Your task to perform on an android device: check google app version Image 0: 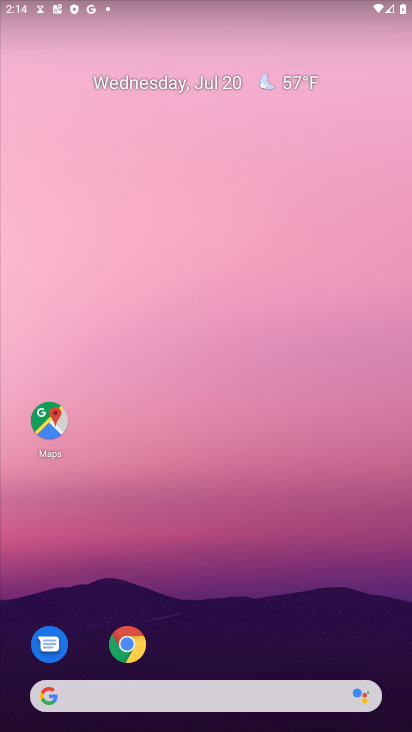
Step 0: press home button
Your task to perform on an android device: check google app version Image 1: 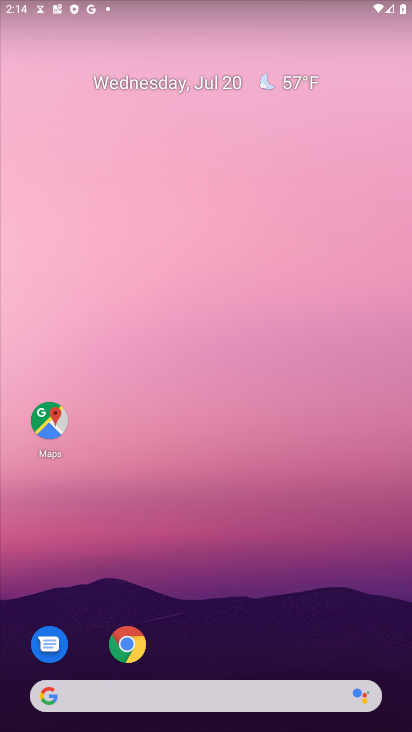
Step 1: click (45, 694)
Your task to perform on an android device: check google app version Image 2: 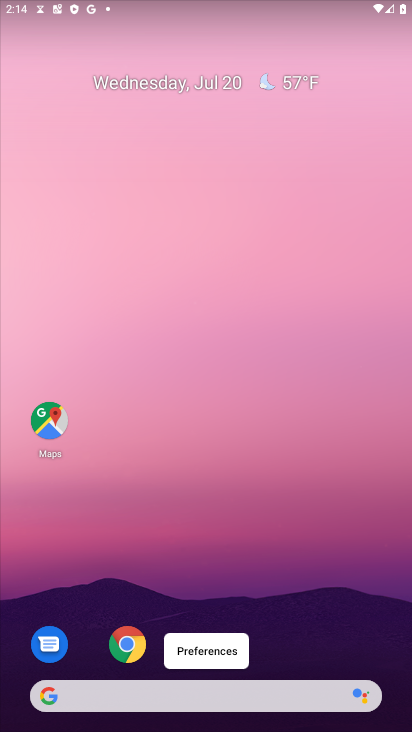
Step 2: drag from (353, 656) to (377, 46)
Your task to perform on an android device: check google app version Image 3: 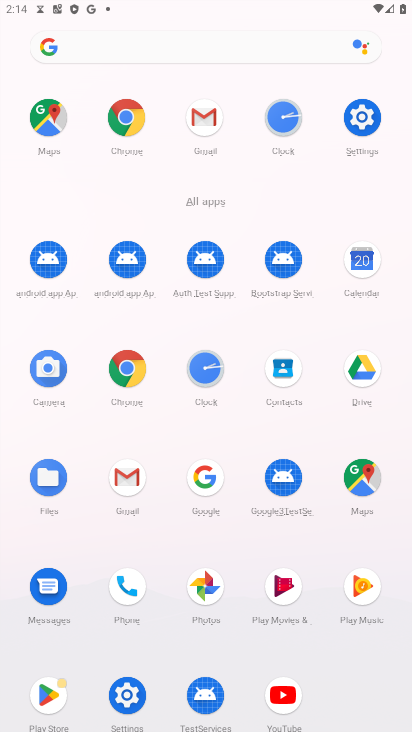
Step 3: click (204, 477)
Your task to perform on an android device: check google app version Image 4: 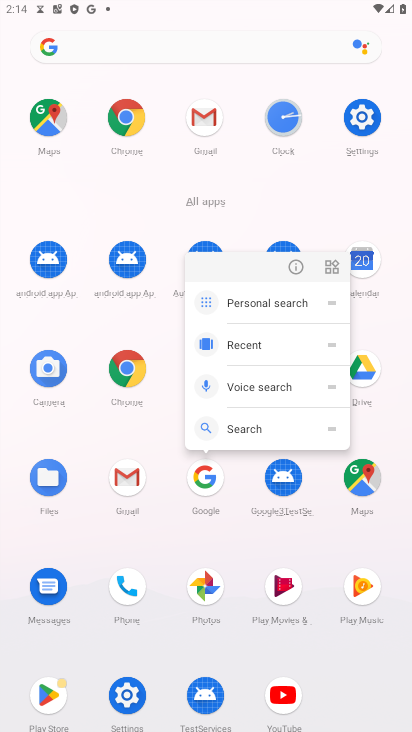
Step 4: click (291, 259)
Your task to perform on an android device: check google app version Image 5: 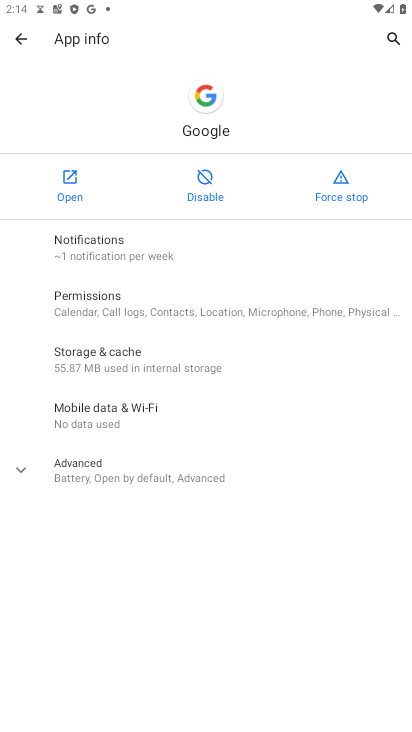
Step 5: click (65, 477)
Your task to perform on an android device: check google app version Image 6: 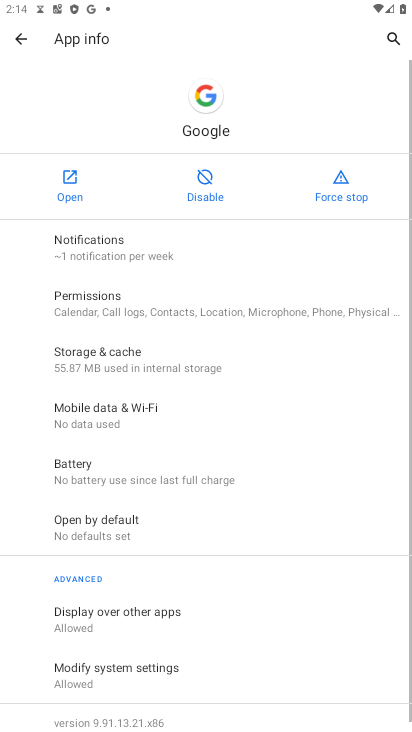
Step 6: task complete